Your task to perform on an android device: open app "ZOOM Cloud Meetings" (install if not already installed) and enter user name: "bauxite@icloud.com" and password: "dim" Image 0: 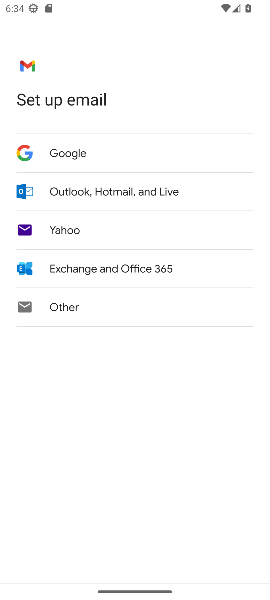
Step 0: press home button
Your task to perform on an android device: open app "ZOOM Cloud Meetings" (install if not already installed) and enter user name: "bauxite@icloud.com" and password: "dim" Image 1: 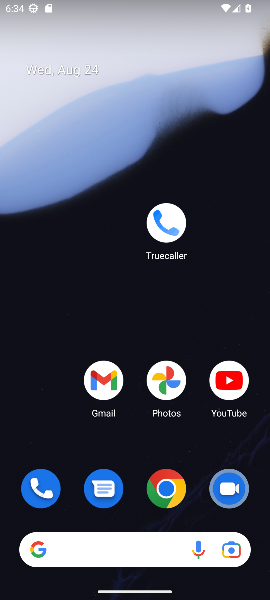
Step 1: click (120, 144)
Your task to perform on an android device: open app "ZOOM Cloud Meetings" (install if not already installed) and enter user name: "bauxite@icloud.com" and password: "dim" Image 2: 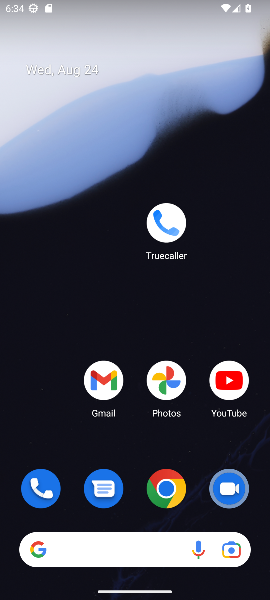
Step 2: drag from (140, 519) to (95, 88)
Your task to perform on an android device: open app "ZOOM Cloud Meetings" (install if not already installed) and enter user name: "bauxite@icloud.com" and password: "dim" Image 3: 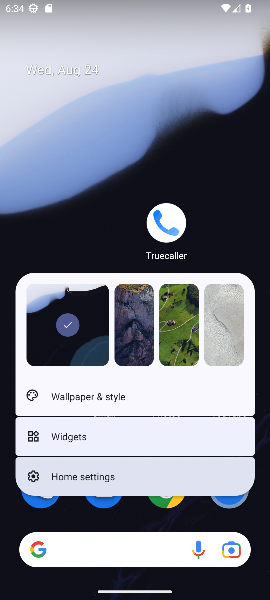
Step 3: click (106, 88)
Your task to perform on an android device: open app "ZOOM Cloud Meetings" (install if not already installed) and enter user name: "bauxite@icloud.com" and password: "dim" Image 4: 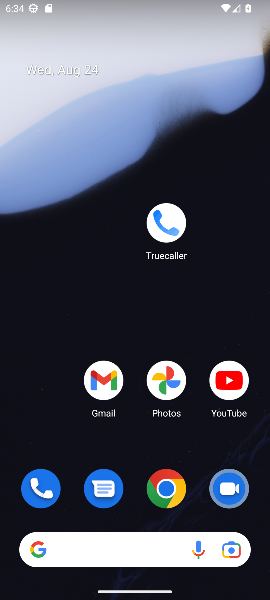
Step 4: drag from (130, 518) to (118, 0)
Your task to perform on an android device: open app "ZOOM Cloud Meetings" (install if not already installed) and enter user name: "bauxite@icloud.com" and password: "dim" Image 5: 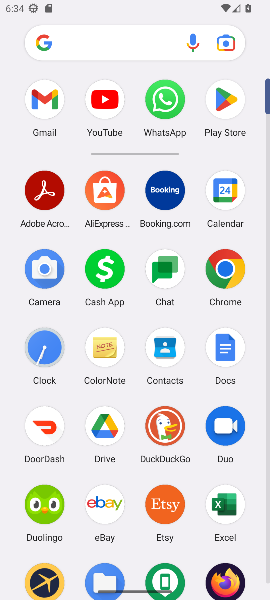
Step 5: click (210, 108)
Your task to perform on an android device: open app "ZOOM Cloud Meetings" (install if not already installed) and enter user name: "bauxite@icloud.com" and password: "dim" Image 6: 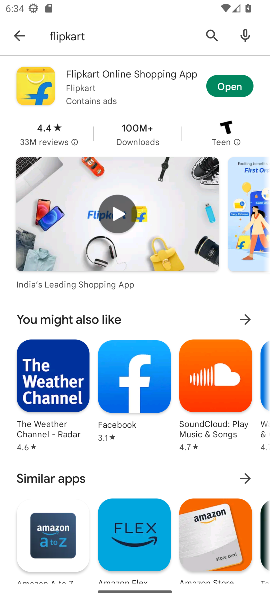
Step 6: click (209, 40)
Your task to perform on an android device: open app "ZOOM Cloud Meetings" (install if not already installed) and enter user name: "bauxite@icloud.com" and password: "dim" Image 7: 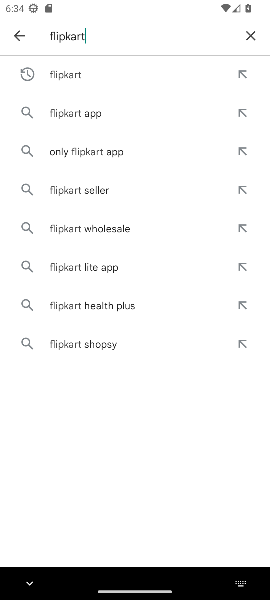
Step 7: click (239, 38)
Your task to perform on an android device: open app "ZOOM Cloud Meetings" (install if not already installed) and enter user name: "bauxite@icloud.com" and password: "dim" Image 8: 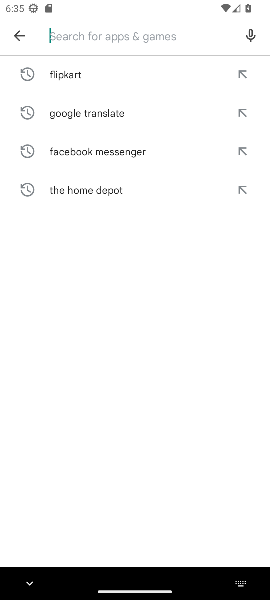
Step 8: type "zoom cloud"
Your task to perform on an android device: open app "ZOOM Cloud Meetings" (install if not already installed) and enter user name: "bauxite@icloud.com" and password: "dim" Image 9: 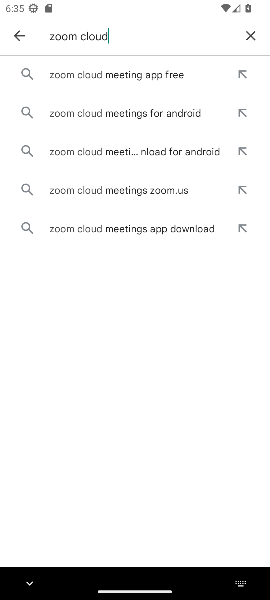
Step 9: click (75, 63)
Your task to perform on an android device: open app "ZOOM Cloud Meetings" (install if not already installed) and enter user name: "bauxite@icloud.com" and password: "dim" Image 10: 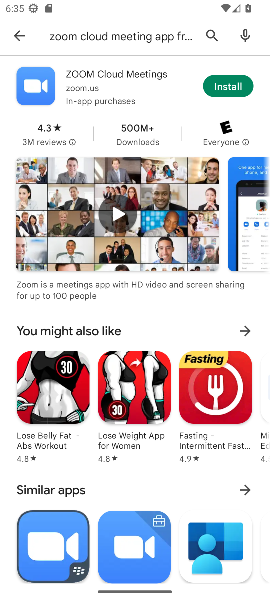
Step 10: click (231, 94)
Your task to perform on an android device: open app "ZOOM Cloud Meetings" (install if not already installed) and enter user name: "bauxite@icloud.com" and password: "dim" Image 11: 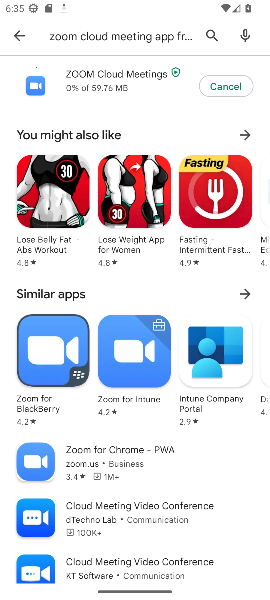
Step 11: task complete